Your task to perform on an android device: turn on notifications settings in the gmail app Image 0: 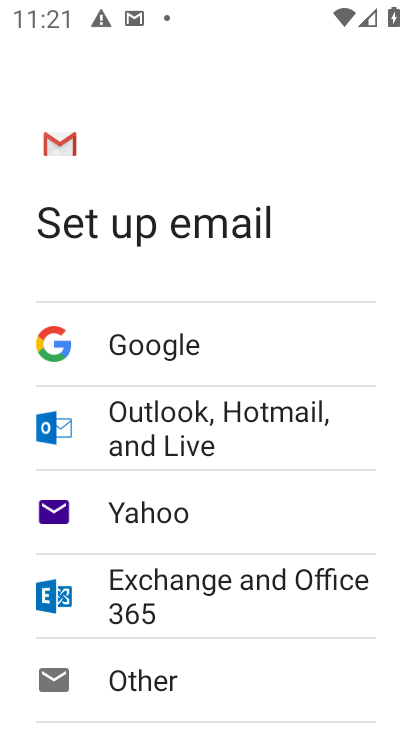
Step 0: press home button
Your task to perform on an android device: turn on notifications settings in the gmail app Image 1: 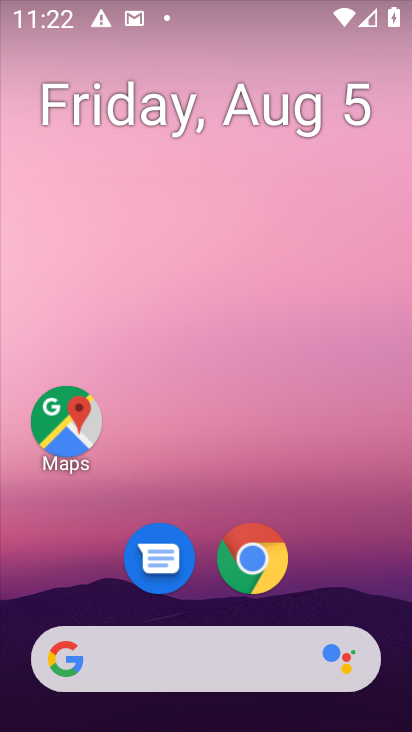
Step 1: drag from (348, 574) to (360, 165)
Your task to perform on an android device: turn on notifications settings in the gmail app Image 2: 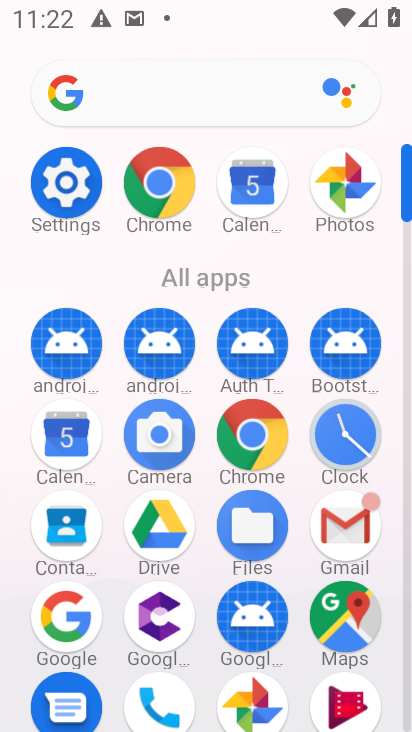
Step 2: click (349, 555)
Your task to perform on an android device: turn on notifications settings in the gmail app Image 3: 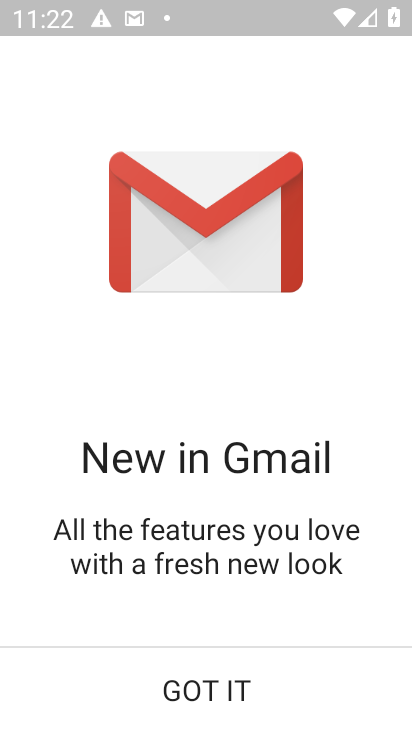
Step 3: click (271, 687)
Your task to perform on an android device: turn on notifications settings in the gmail app Image 4: 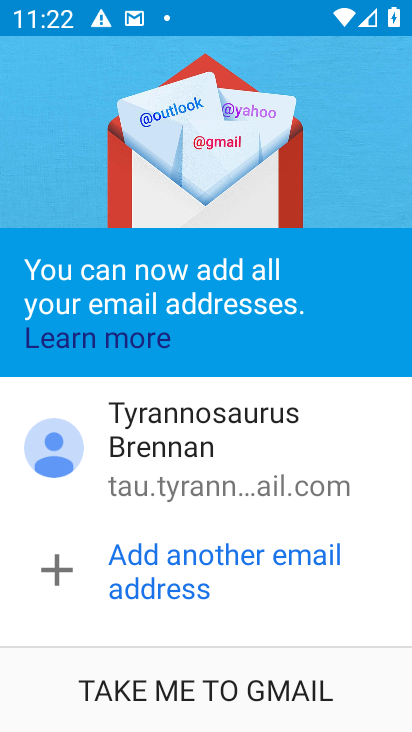
Step 4: click (271, 687)
Your task to perform on an android device: turn on notifications settings in the gmail app Image 5: 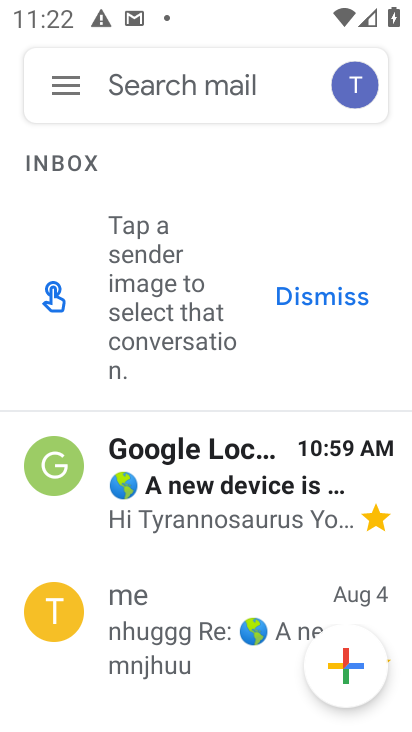
Step 5: click (62, 85)
Your task to perform on an android device: turn on notifications settings in the gmail app Image 6: 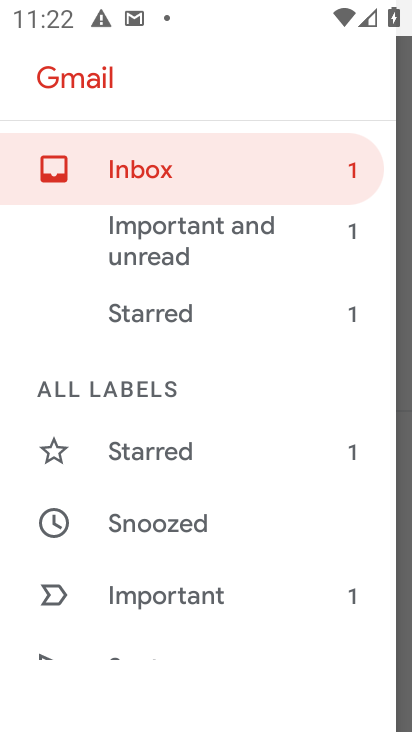
Step 6: drag from (270, 428) to (288, 338)
Your task to perform on an android device: turn on notifications settings in the gmail app Image 7: 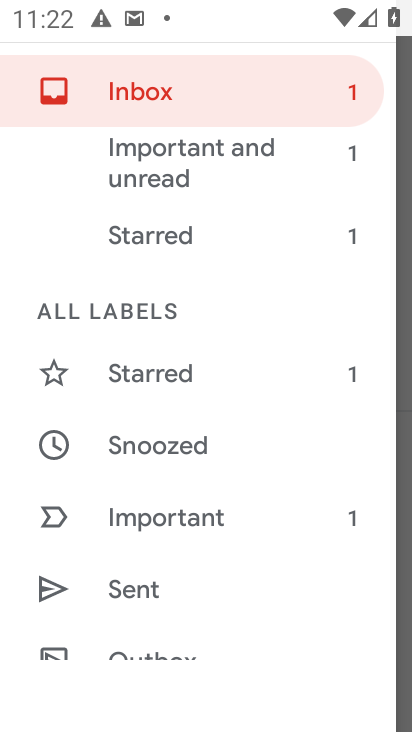
Step 7: drag from (268, 496) to (273, 359)
Your task to perform on an android device: turn on notifications settings in the gmail app Image 8: 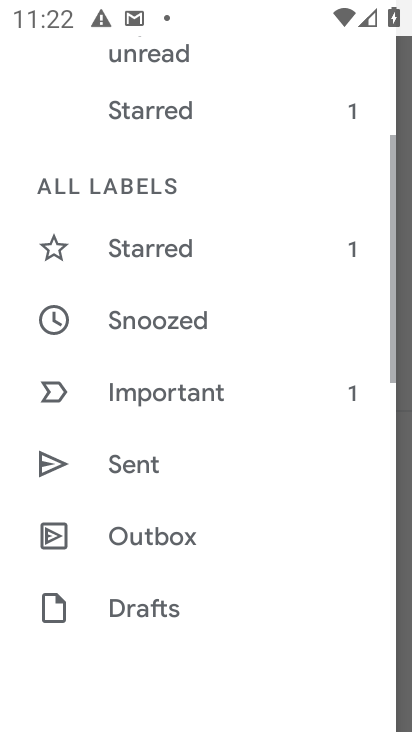
Step 8: drag from (293, 499) to (298, 323)
Your task to perform on an android device: turn on notifications settings in the gmail app Image 9: 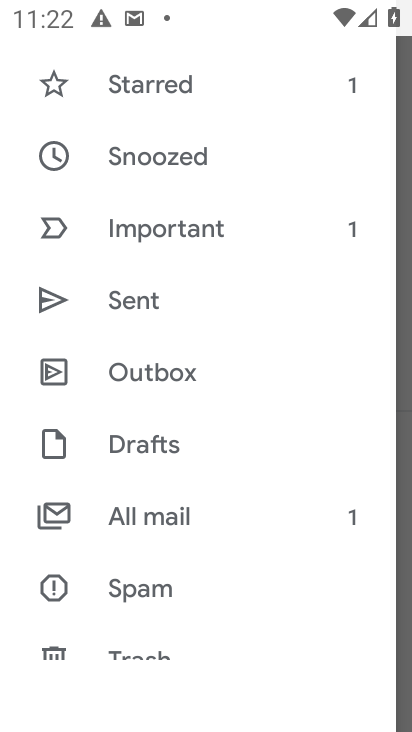
Step 9: drag from (289, 557) to (284, 414)
Your task to perform on an android device: turn on notifications settings in the gmail app Image 10: 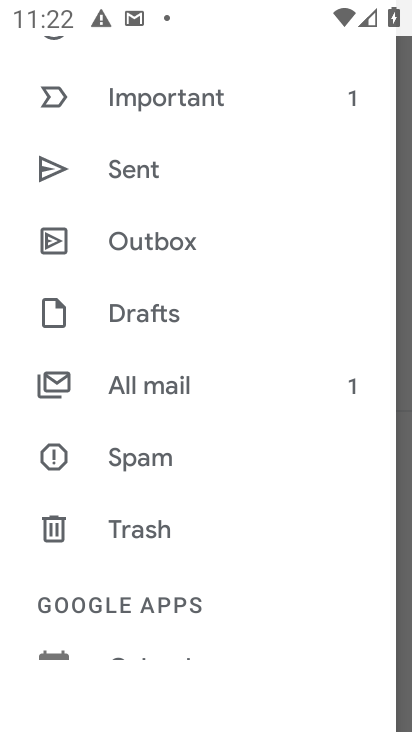
Step 10: drag from (245, 571) to (264, 414)
Your task to perform on an android device: turn on notifications settings in the gmail app Image 11: 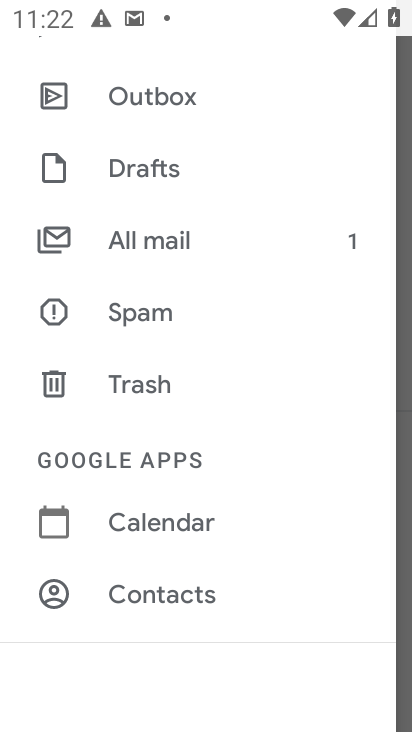
Step 11: drag from (276, 557) to (291, 431)
Your task to perform on an android device: turn on notifications settings in the gmail app Image 12: 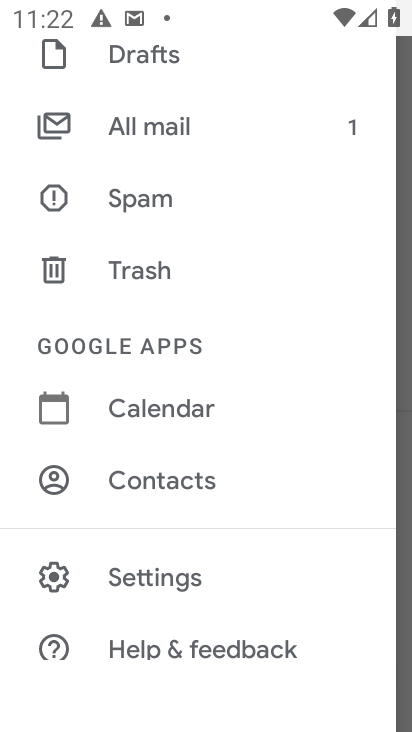
Step 12: click (272, 571)
Your task to perform on an android device: turn on notifications settings in the gmail app Image 13: 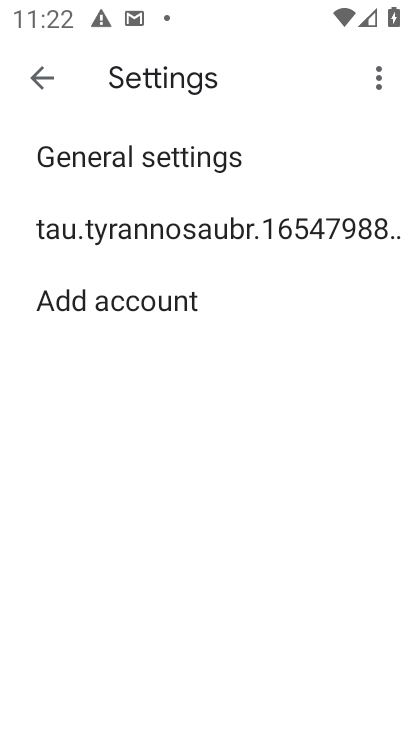
Step 13: click (252, 225)
Your task to perform on an android device: turn on notifications settings in the gmail app Image 14: 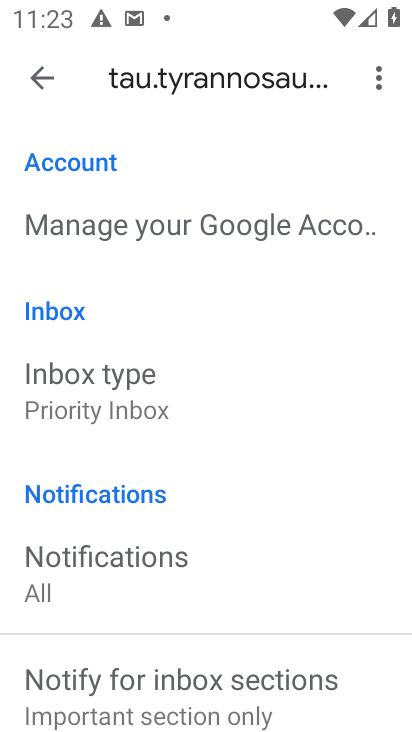
Step 14: drag from (261, 508) to (261, 388)
Your task to perform on an android device: turn on notifications settings in the gmail app Image 15: 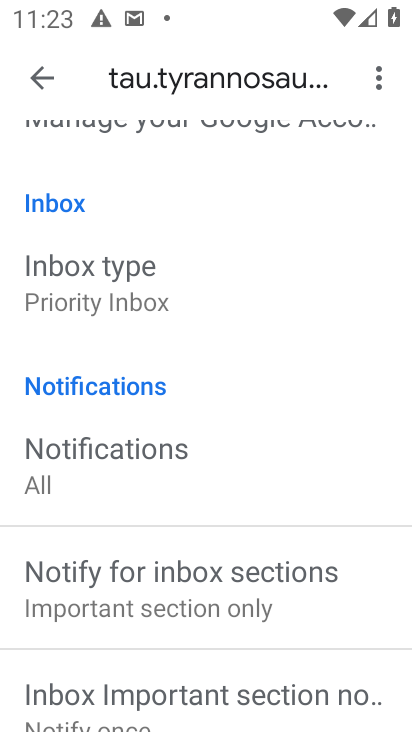
Step 15: drag from (261, 558) to (275, 409)
Your task to perform on an android device: turn on notifications settings in the gmail app Image 16: 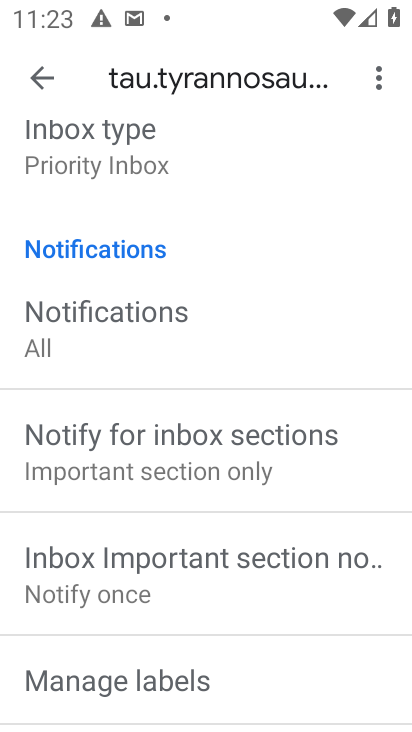
Step 16: drag from (276, 541) to (271, 417)
Your task to perform on an android device: turn on notifications settings in the gmail app Image 17: 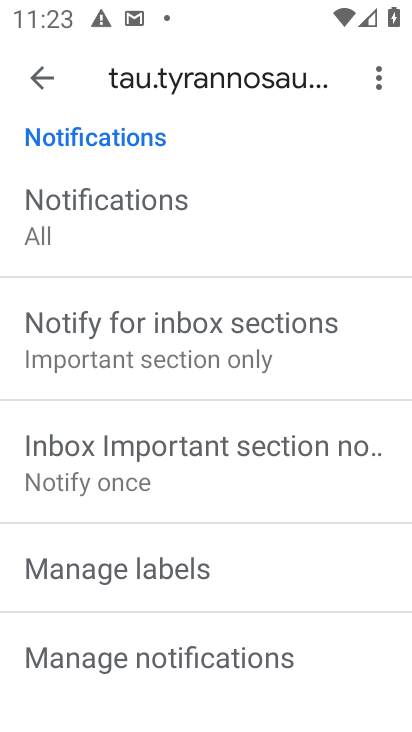
Step 17: drag from (265, 538) to (271, 414)
Your task to perform on an android device: turn on notifications settings in the gmail app Image 18: 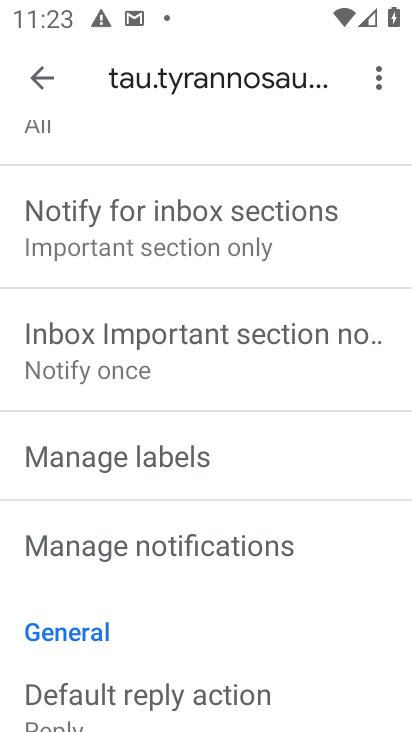
Step 18: drag from (272, 559) to (282, 448)
Your task to perform on an android device: turn on notifications settings in the gmail app Image 19: 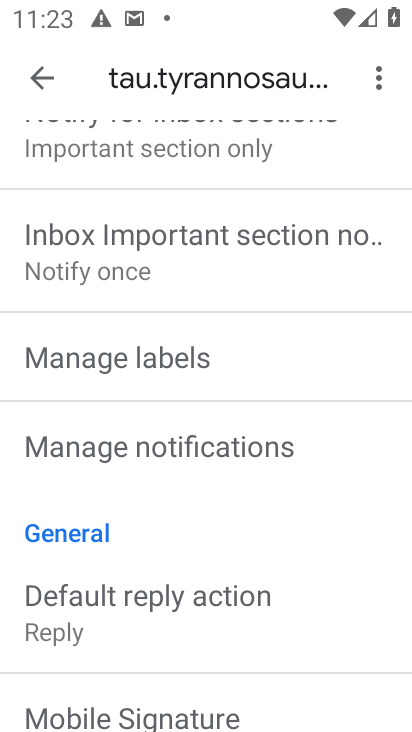
Step 19: click (258, 435)
Your task to perform on an android device: turn on notifications settings in the gmail app Image 20: 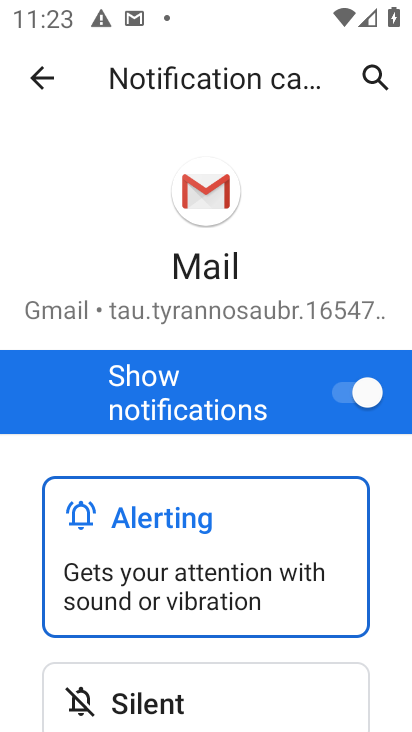
Step 20: task complete